Your task to perform on an android device: open device folders in google photos Image 0: 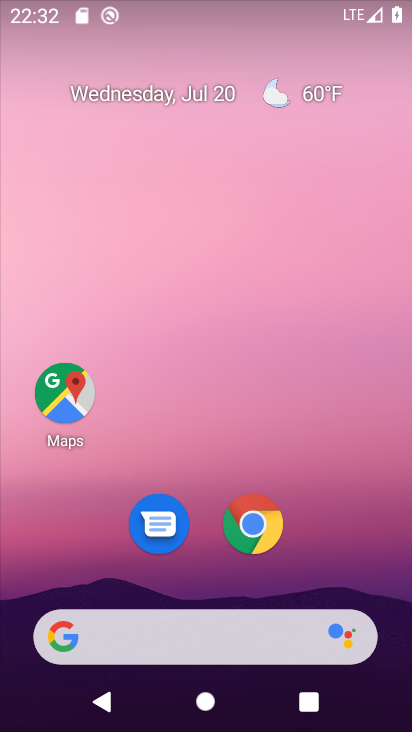
Step 0: drag from (309, 495) to (295, 53)
Your task to perform on an android device: open device folders in google photos Image 1: 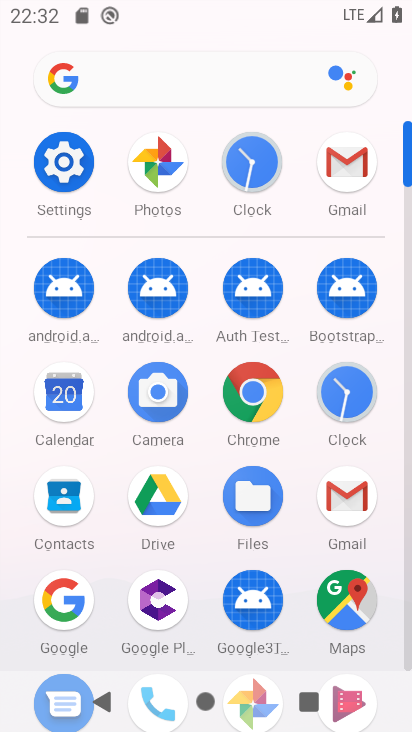
Step 1: click (149, 177)
Your task to perform on an android device: open device folders in google photos Image 2: 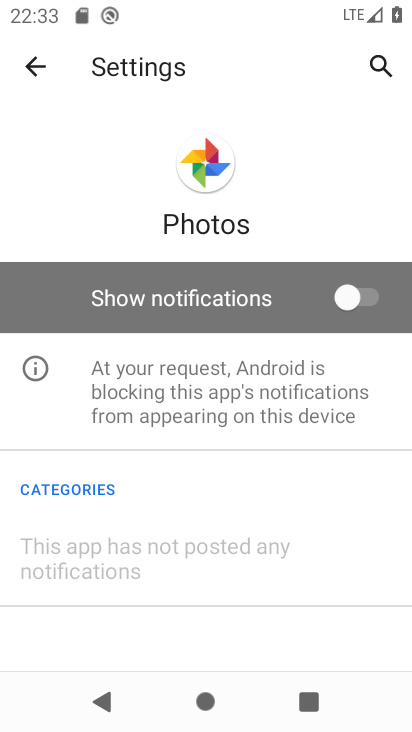
Step 2: click (39, 58)
Your task to perform on an android device: open device folders in google photos Image 3: 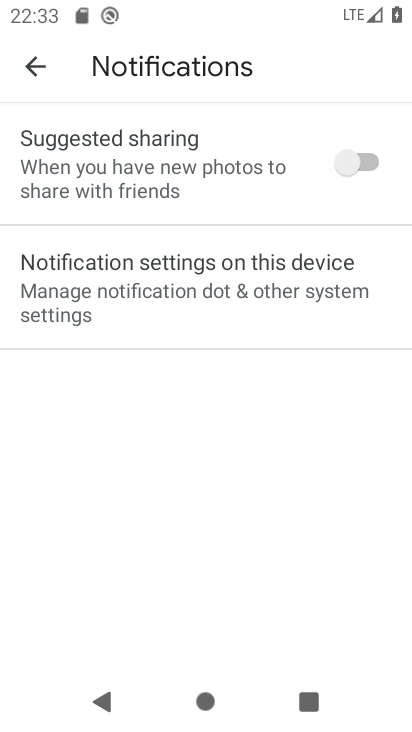
Step 3: click (36, 62)
Your task to perform on an android device: open device folders in google photos Image 4: 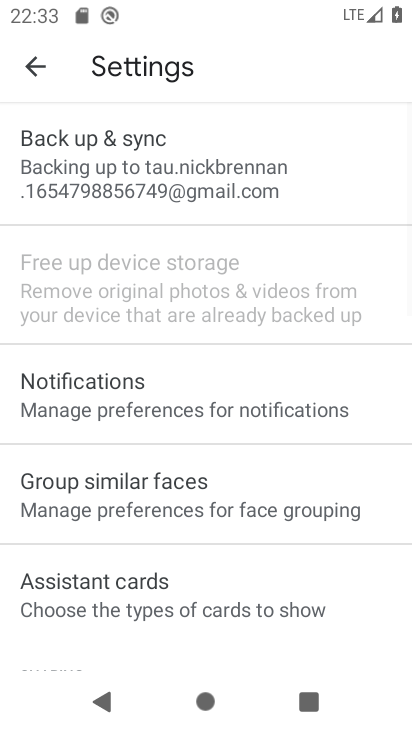
Step 4: click (36, 64)
Your task to perform on an android device: open device folders in google photos Image 5: 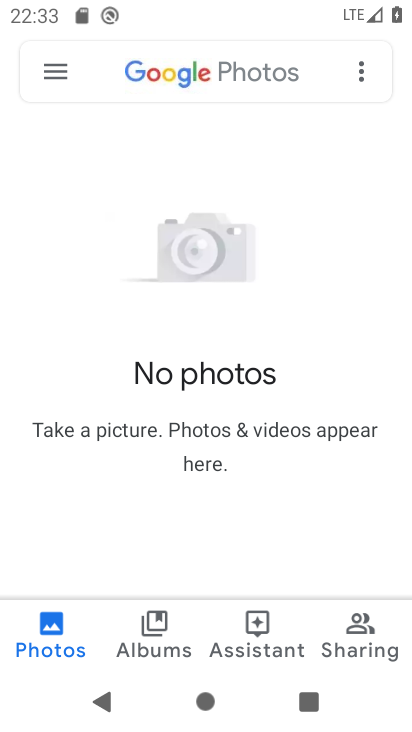
Step 5: click (54, 76)
Your task to perform on an android device: open device folders in google photos Image 6: 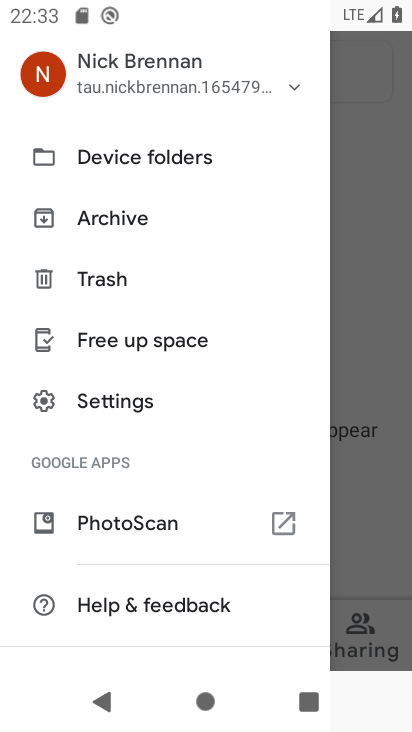
Step 6: click (133, 156)
Your task to perform on an android device: open device folders in google photos Image 7: 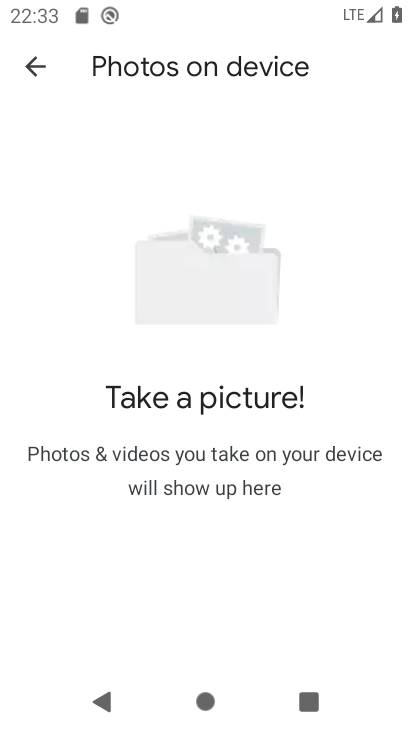
Step 7: task complete